Your task to perform on an android device: change the clock display to analog Image 0: 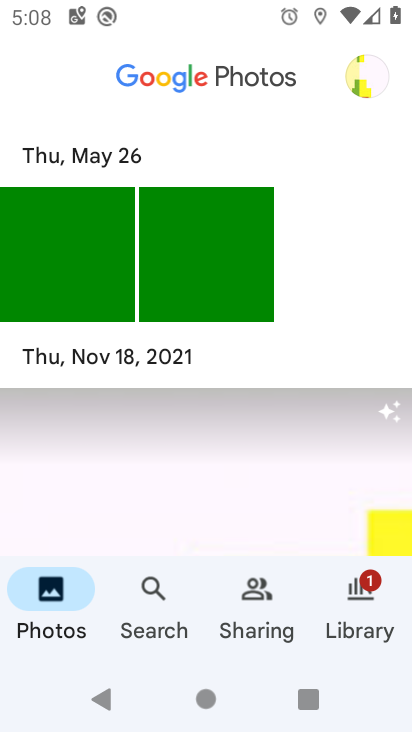
Step 0: press home button
Your task to perform on an android device: change the clock display to analog Image 1: 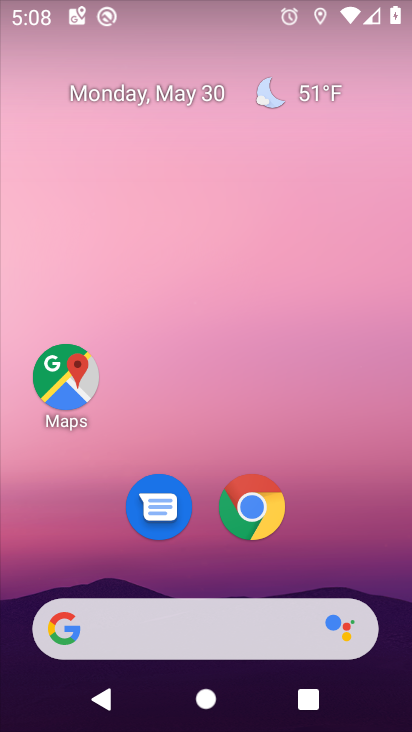
Step 1: drag from (404, 654) to (334, 96)
Your task to perform on an android device: change the clock display to analog Image 2: 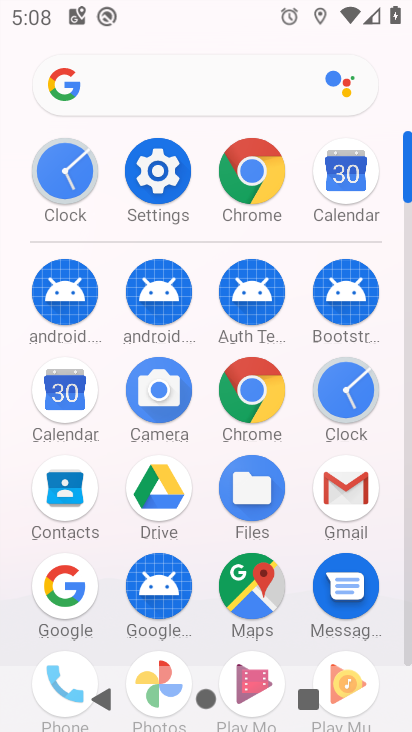
Step 2: click (364, 378)
Your task to perform on an android device: change the clock display to analog Image 3: 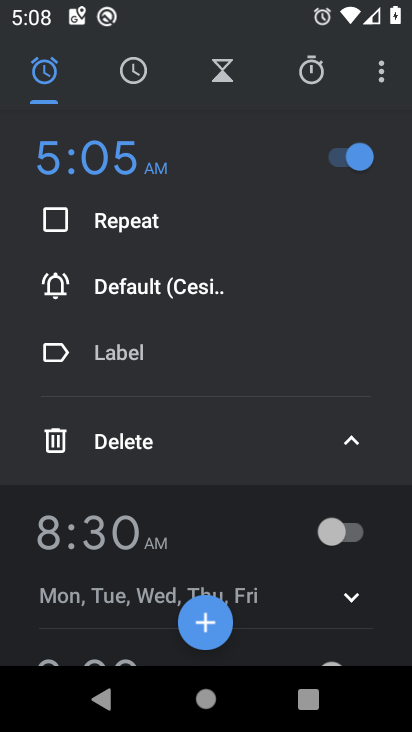
Step 3: click (391, 62)
Your task to perform on an android device: change the clock display to analog Image 4: 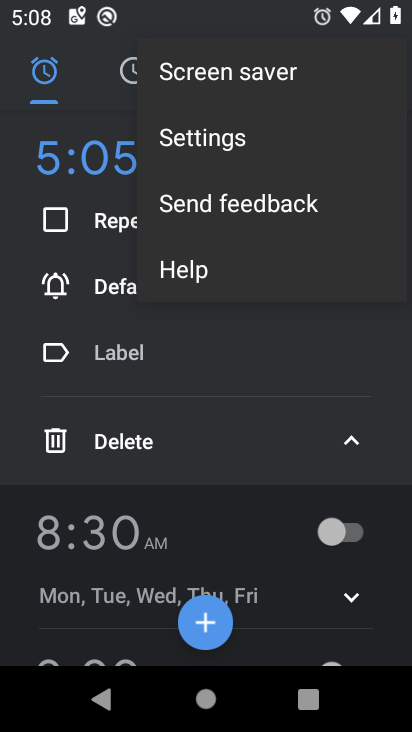
Step 4: click (228, 139)
Your task to perform on an android device: change the clock display to analog Image 5: 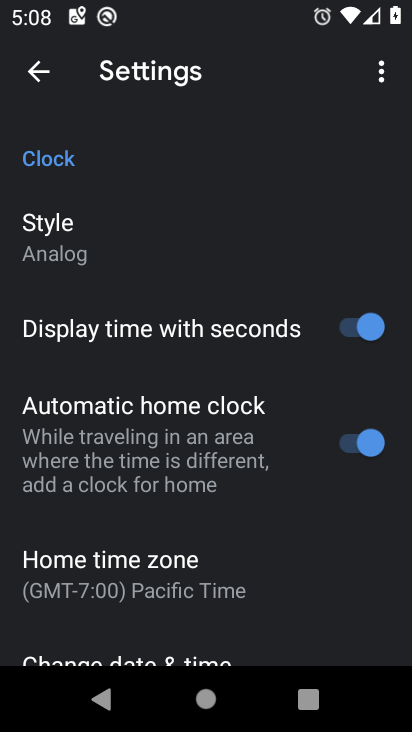
Step 5: task complete